Your task to perform on an android device: change timer sound Image 0: 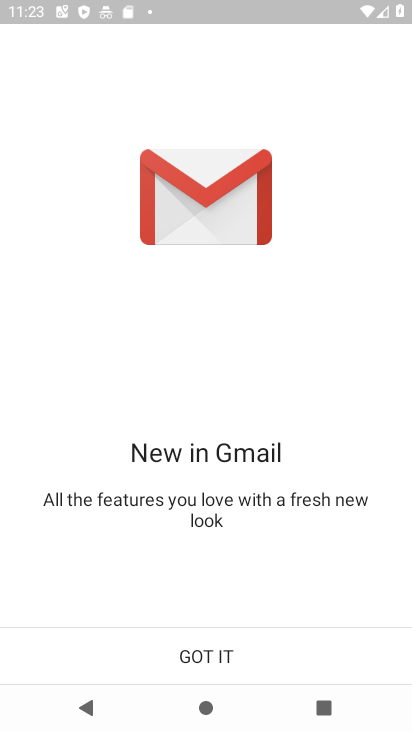
Step 0: press home button
Your task to perform on an android device: change timer sound Image 1: 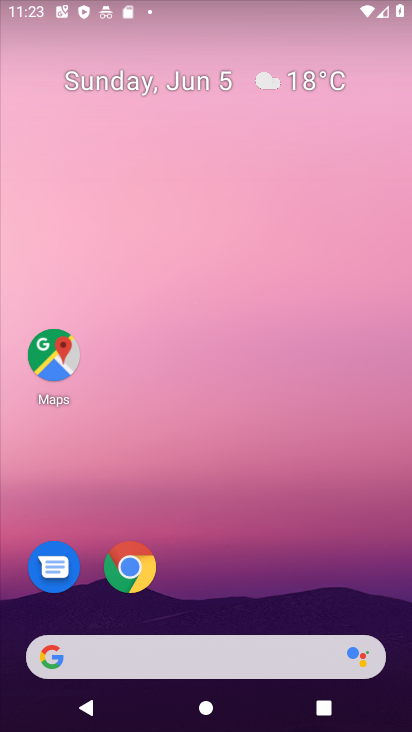
Step 1: drag from (234, 571) to (207, 48)
Your task to perform on an android device: change timer sound Image 2: 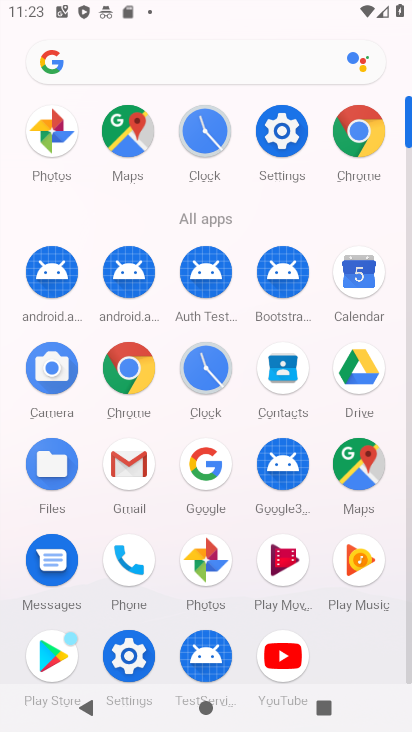
Step 2: click (206, 133)
Your task to perform on an android device: change timer sound Image 3: 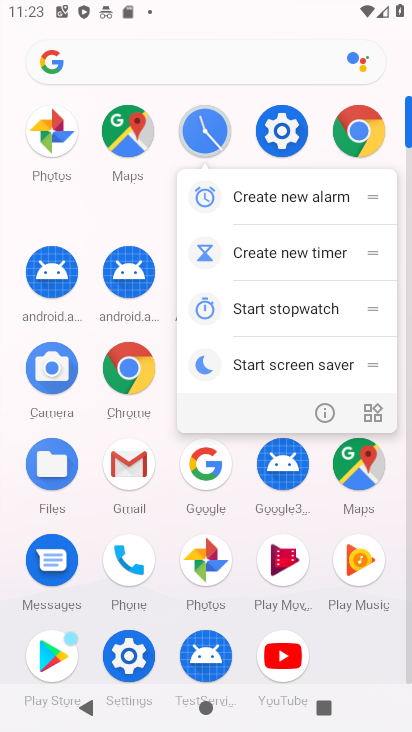
Step 3: click (205, 116)
Your task to perform on an android device: change timer sound Image 4: 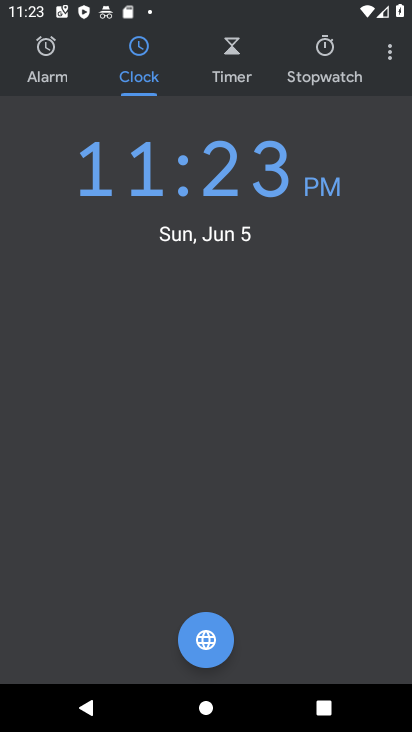
Step 4: click (390, 63)
Your task to perform on an android device: change timer sound Image 5: 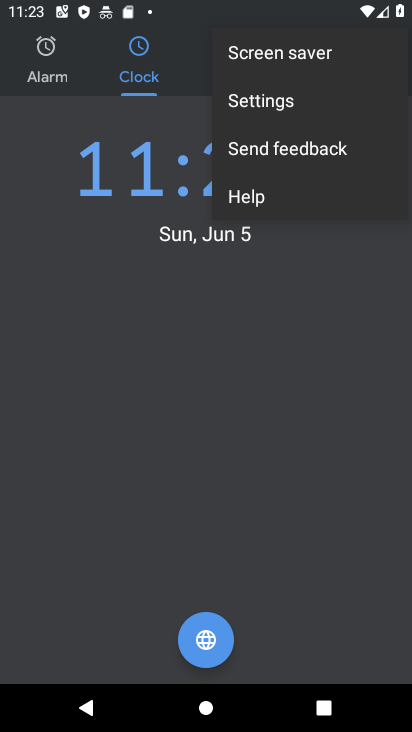
Step 5: click (336, 98)
Your task to perform on an android device: change timer sound Image 6: 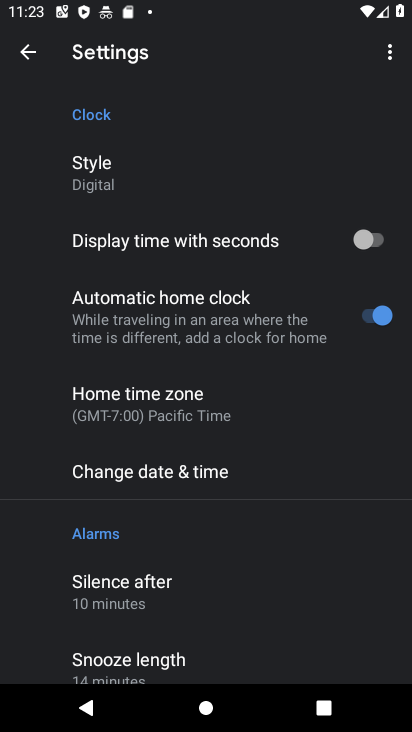
Step 6: drag from (269, 547) to (234, 190)
Your task to perform on an android device: change timer sound Image 7: 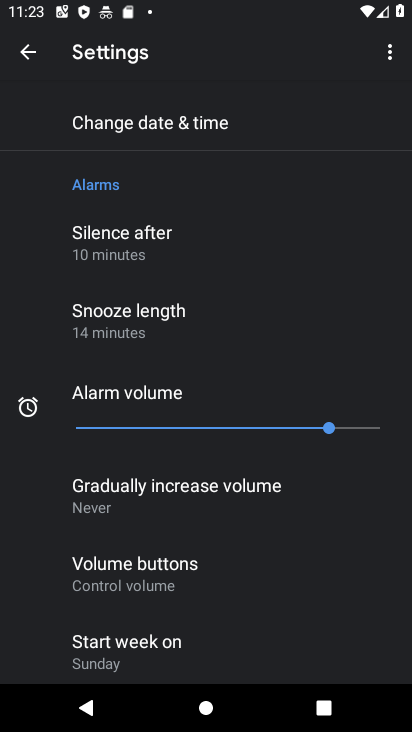
Step 7: drag from (288, 503) to (294, 247)
Your task to perform on an android device: change timer sound Image 8: 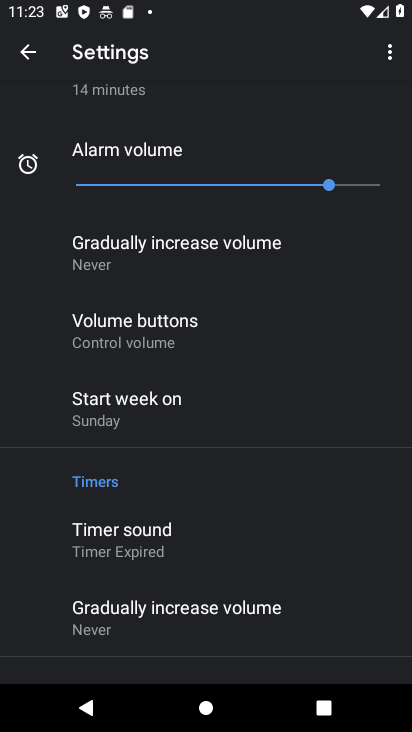
Step 8: click (204, 536)
Your task to perform on an android device: change timer sound Image 9: 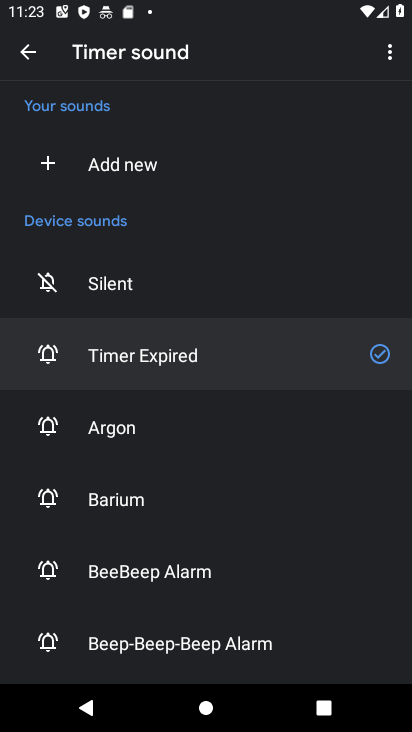
Step 9: click (122, 444)
Your task to perform on an android device: change timer sound Image 10: 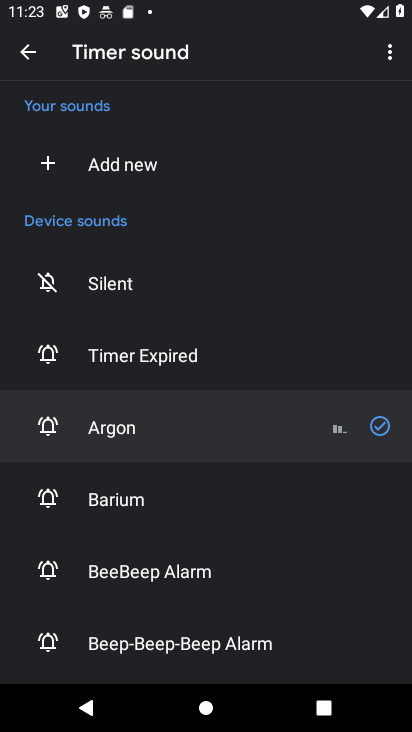
Step 10: task complete